Your task to perform on an android device: find photos in the google photos app Image 0: 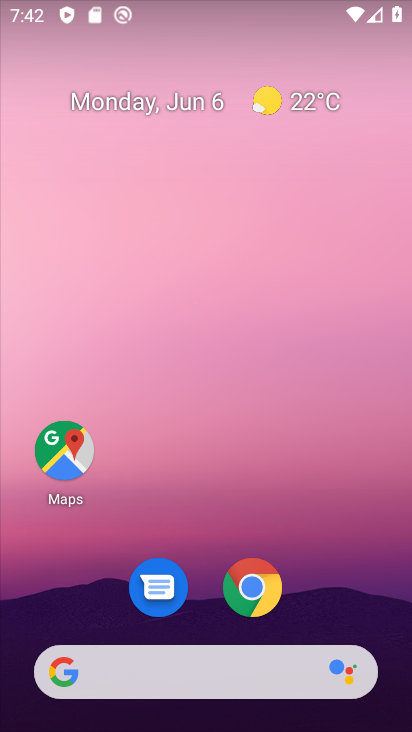
Step 0: drag from (224, 628) to (189, 320)
Your task to perform on an android device: find photos in the google photos app Image 1: 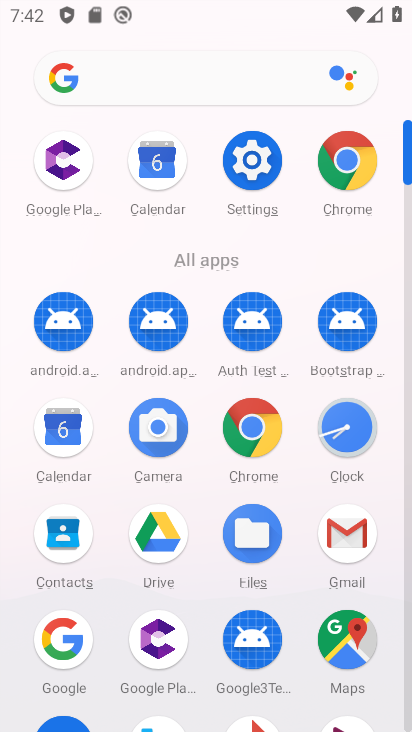
Step 1: drag from (309, 633) to (266, 270)
Your task to perform on an android device: find photos in the google photos app Image 2: 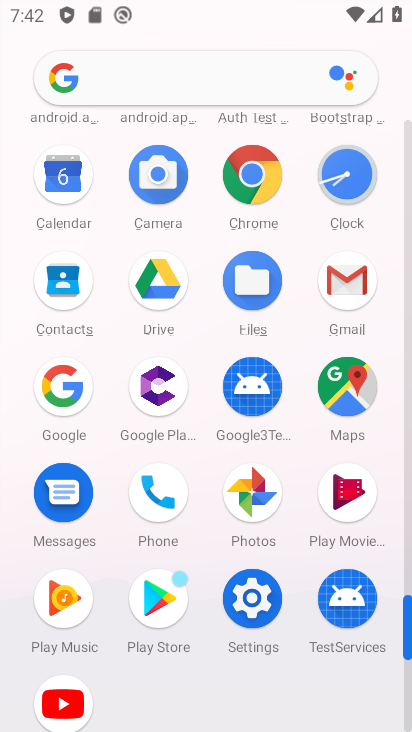
Step 2: click (231, 495)
Your task to perform on an android device: find photos in the google photos app Image 3: 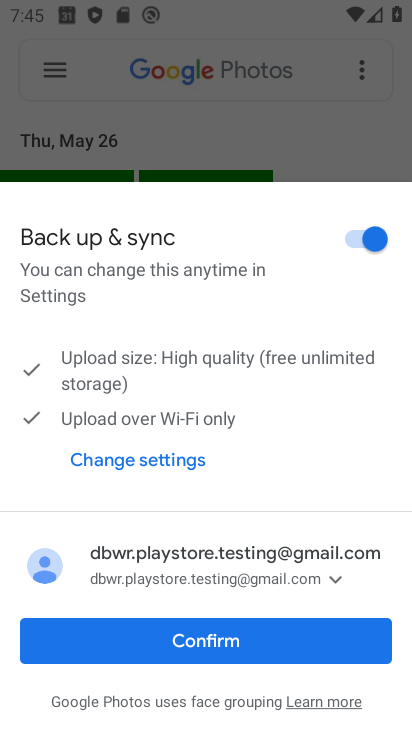
Step 3: click (198, 639)
Your task to perform on an android device: find photos in the google photos app Image 4: 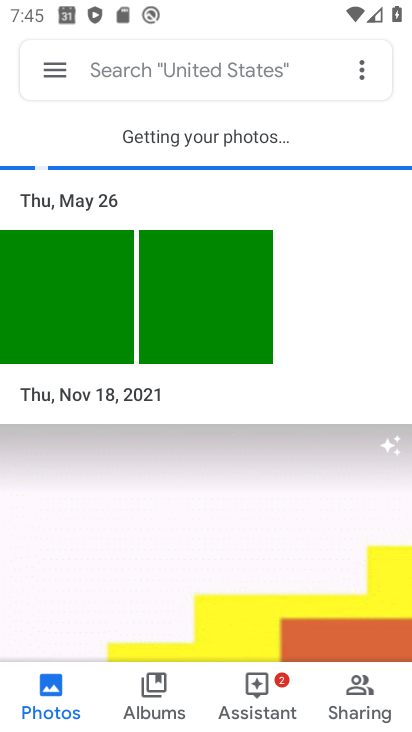
Step 4: click (139, 71)
Your task to perform on an android device: find photos in the google photos app Image 5: 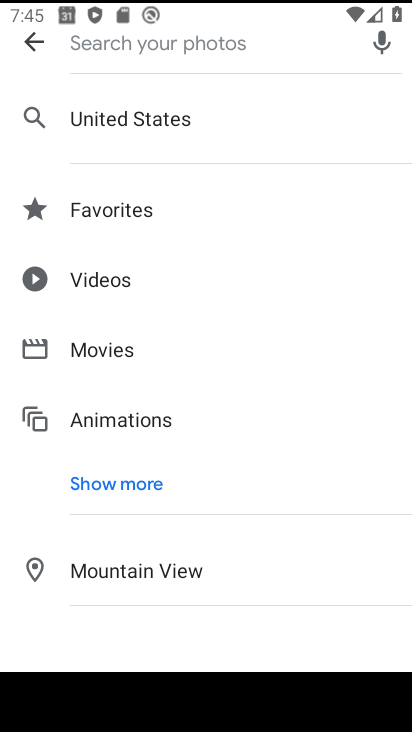
Step 5: click (111, 113)
Your task to perform on an android device: find photos in the google photos app Image 6: 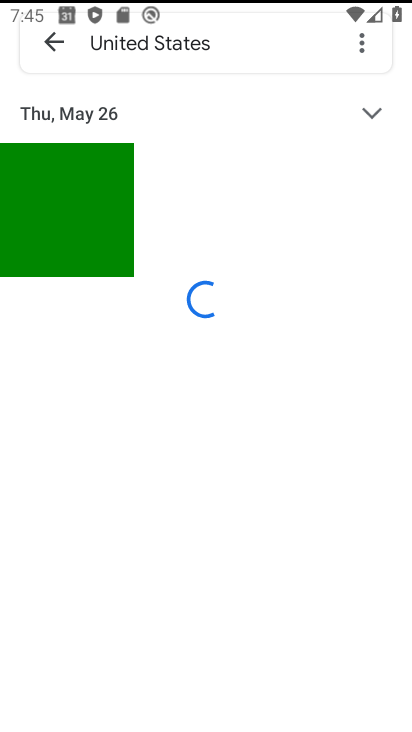
Step 6: task complete